Your task to perform on an android device: set the stopwatch Image 0: 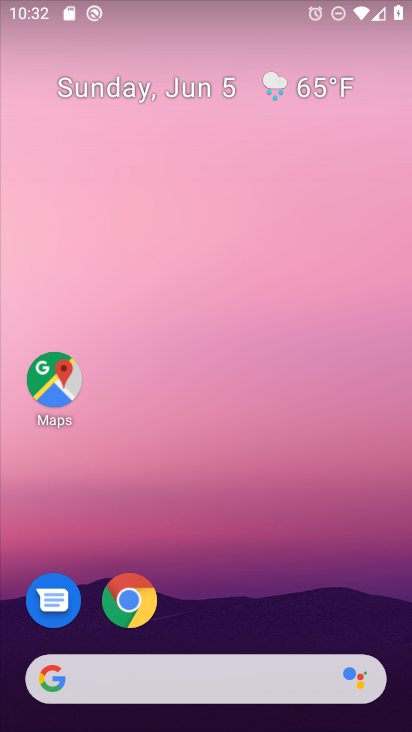
Step 0: drag from (364, 602) to (241, 81)
Your task to perform on an android device: set the stopwatch Image 1: 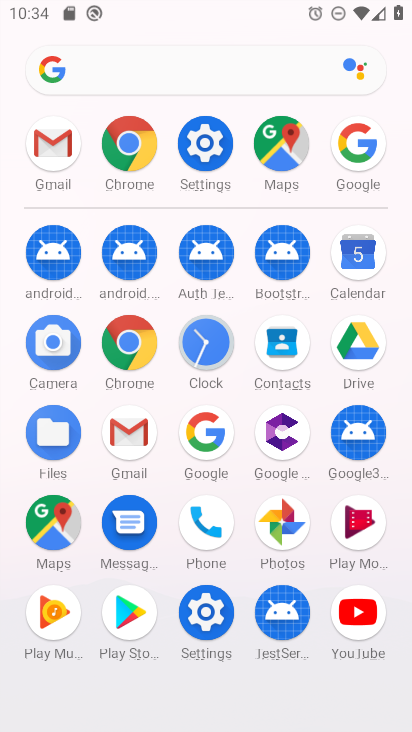
Step 1: click (218, 348)
Your task to perform on an android device: set the stopwatch Image 2: 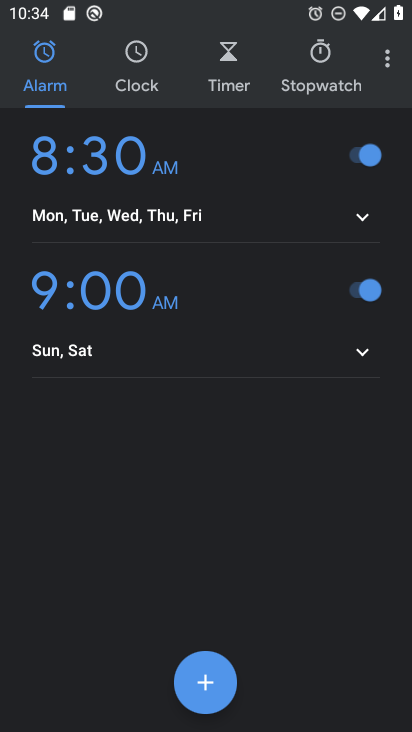
Step 2: click (335, 60)
Your task to perform on an android device: set the stopwatch Image 3: 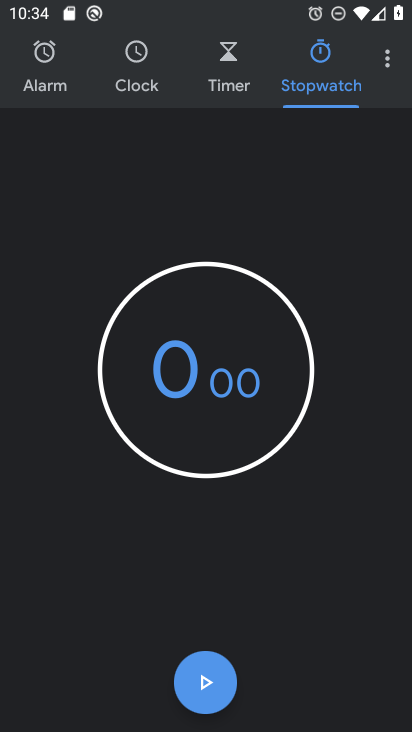
Step 3: task complete